Your task to perform on an android device: Open maps Image 0: 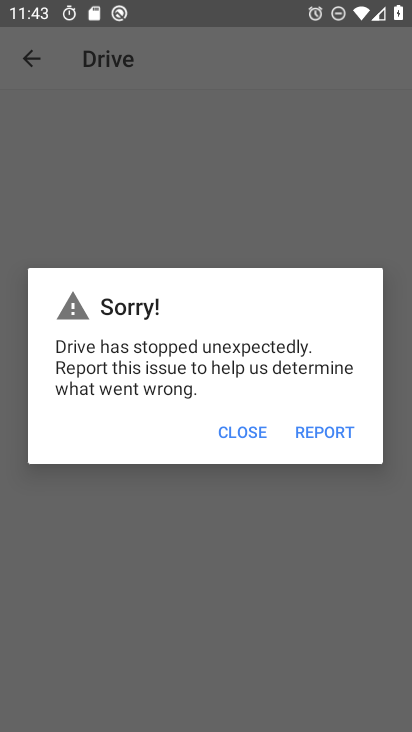
Step 0: press home button
Your task to perform on an android device: Open maps Image 1: 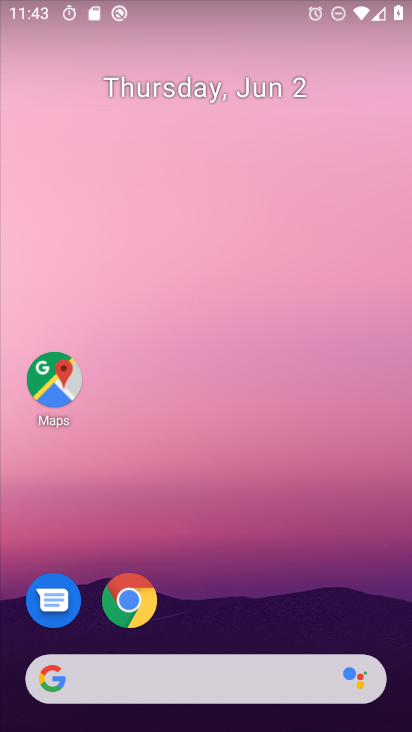
Step 1: click (63, 388)
Your task to perform on an android device: Open maps Image 2: 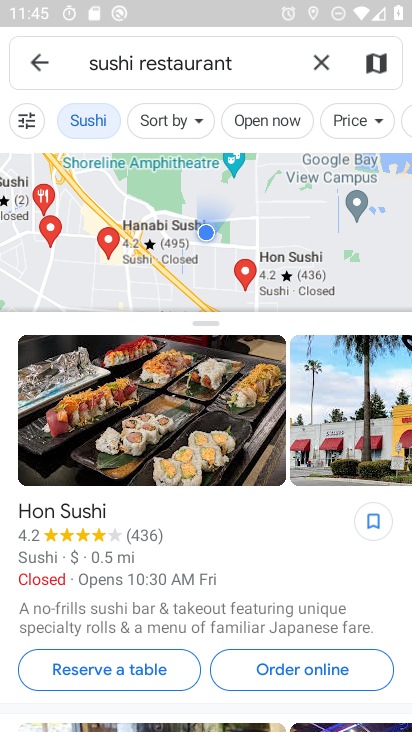
Step 2: task complete